Your task to perform on an android device: What's the weather today? Image 0: 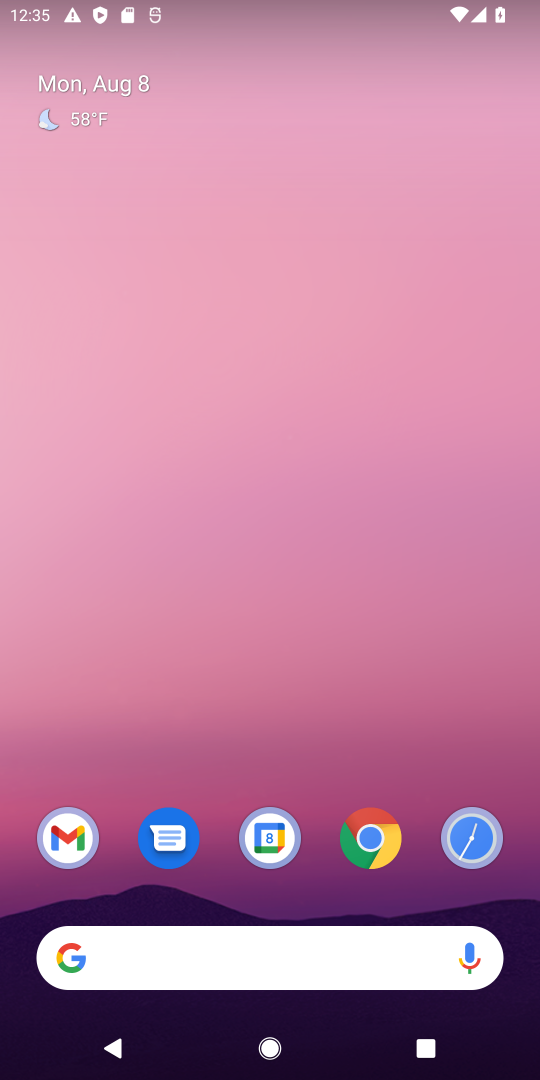
Step 0: press home button
Your task to perform on an android device: What's the weather today? Image 1: 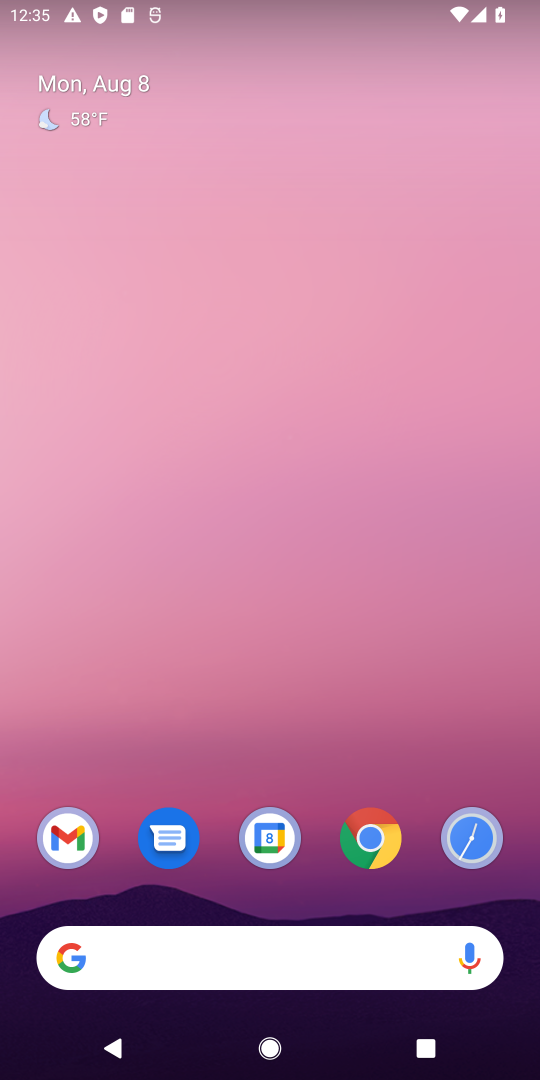
Step 1: click (79, 962)
Your task to perform on an android device: What's the weather today? Image 2: 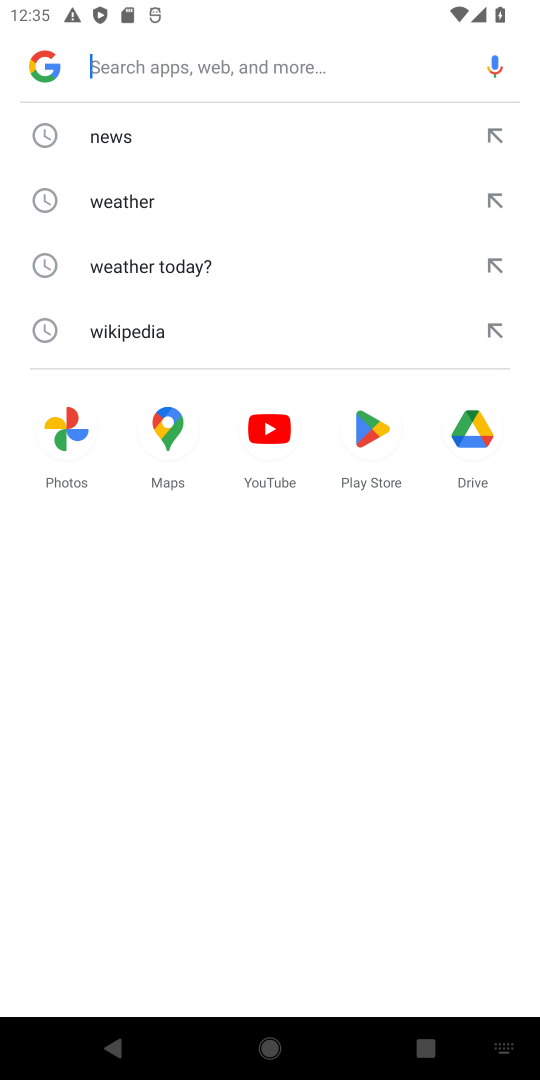
Step 2: click (156, 265)
Your task to perform on an android device: What's the weather today? Image 3: 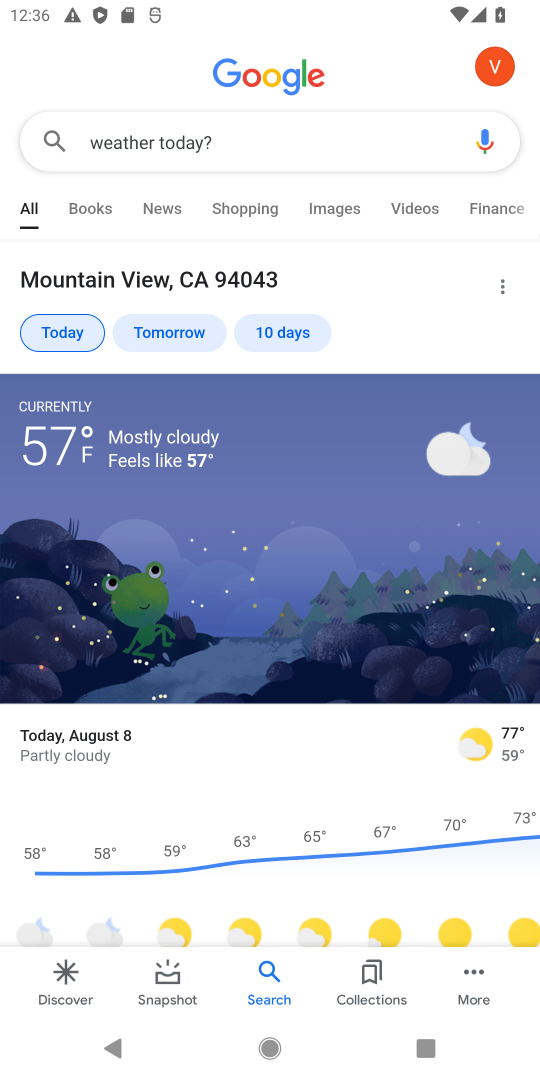
Step 3: task complete